Your task to perform on an android device: change alarm snooze length Image 0: 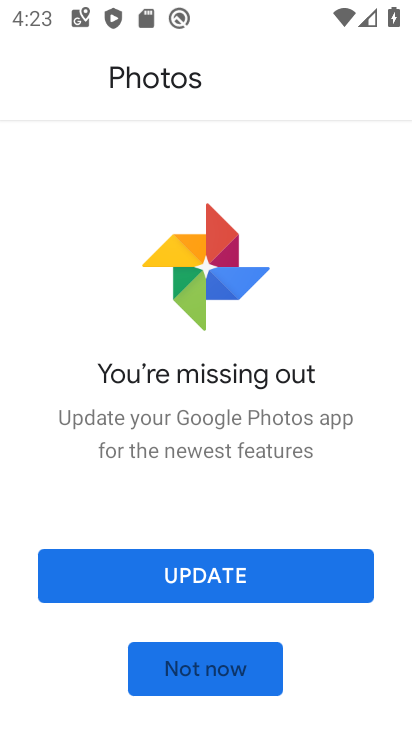
Step 0: press back button
Your task to perform on an android device: change alarm snooze length Image 1: 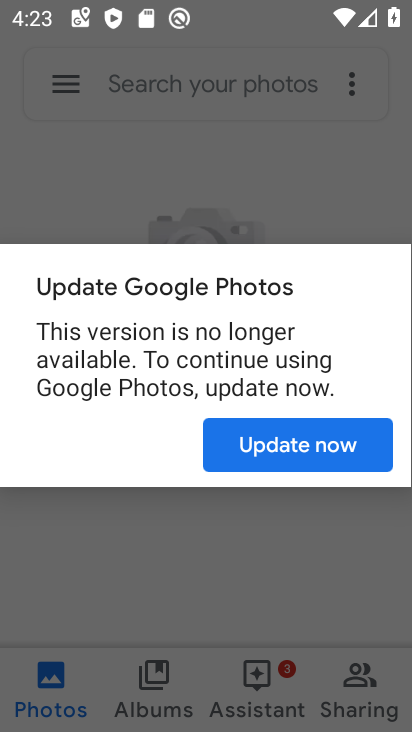
Step 1: press home button
Your task to perform on an android device: change alarm snooze length Image 2: 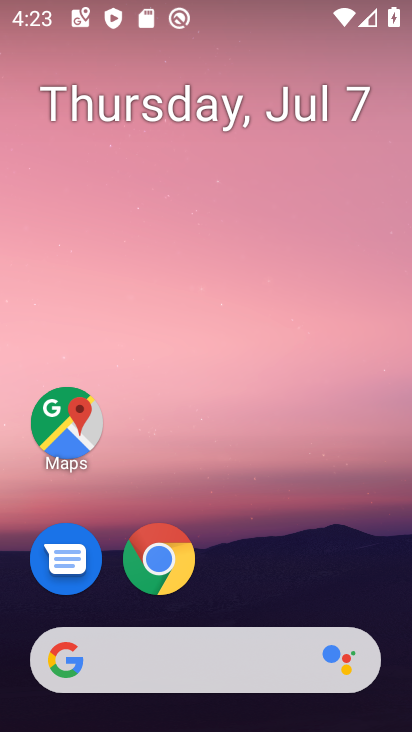
Step 2: drag from (216, 601) to (282, 4)
Your task to perform on an android device: change alarm snooze length Image 3: 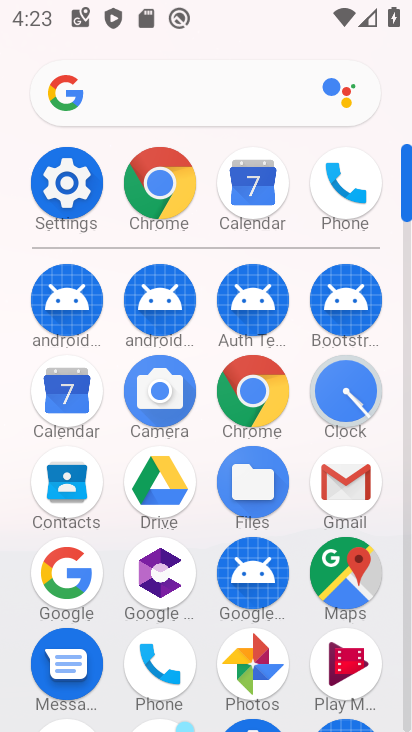
Step 3: click (352, 388)
Your task to perform on an android device: change alarm snooze length Image 4: 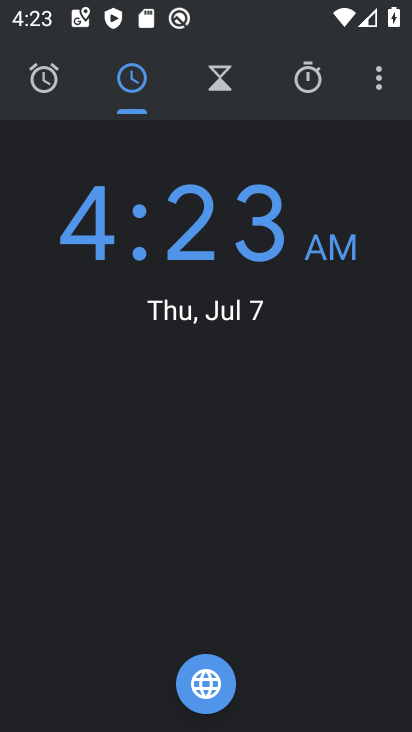
Step 4: click (382, 76)
Your task to perform on an android device: change alarm snooze length Image 5: 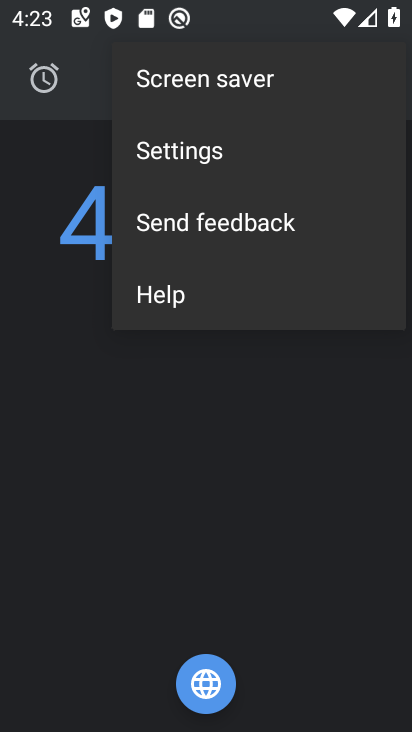
Step 5: click (189, 156)
Your task to perform on an android device: change alarm snooze length Image 6: 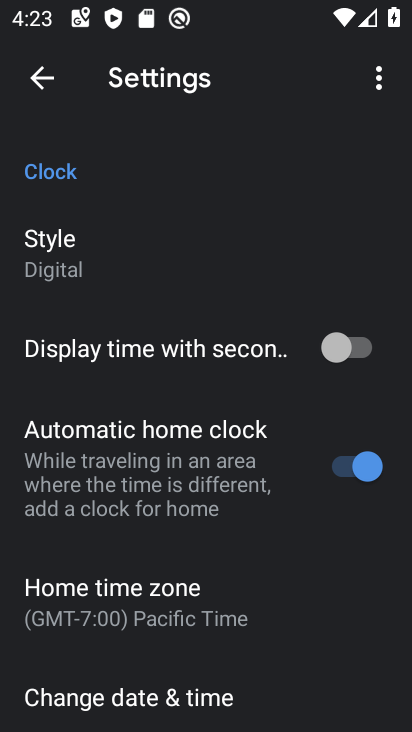
Step 6: drag from (158, 630) to (239, 98)
Your task to perform on an android device: change alarm snooze length Image 7: 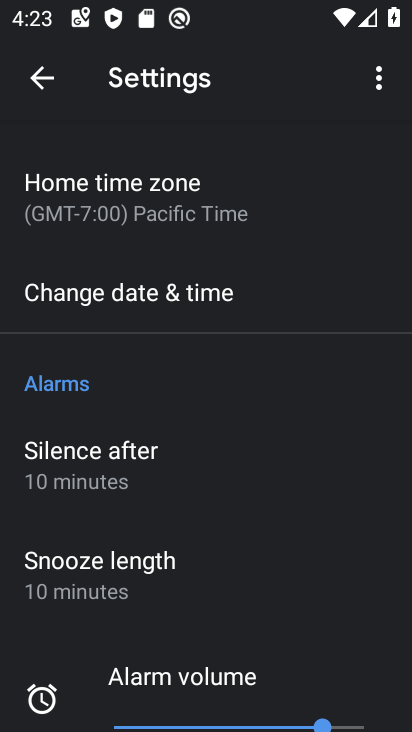
Step 7: click (110, 564)
Your task to perform on an android device: change alarm snooze length Image 8: 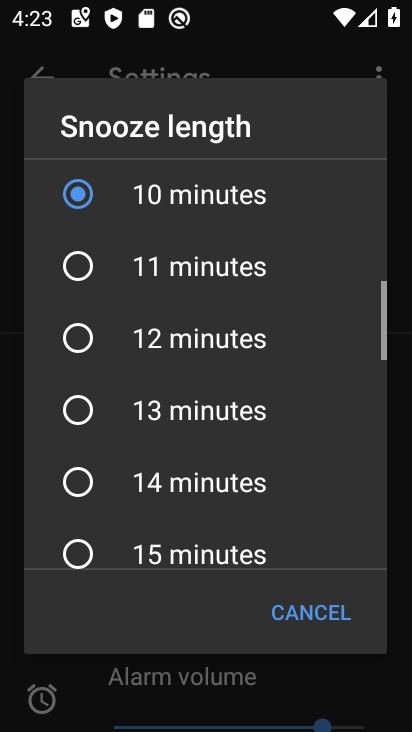
Step 8: click (74, 267)
Your task to perform on an android device: change alarm snooze length Image 9: 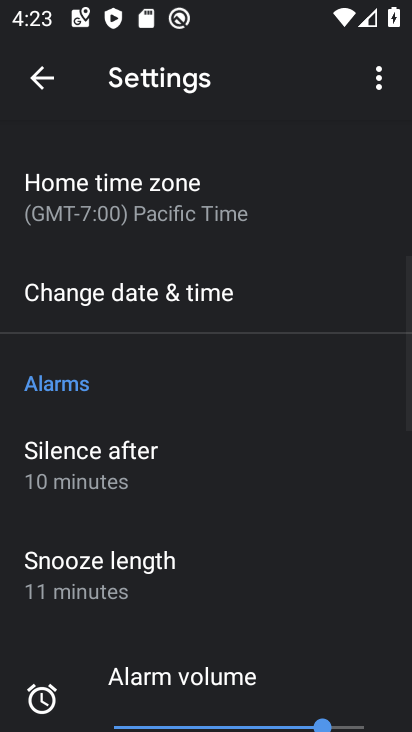
Step 9: task complete